Your task to perform on an android device: What's the weather going to be tomorrow? Image 0: 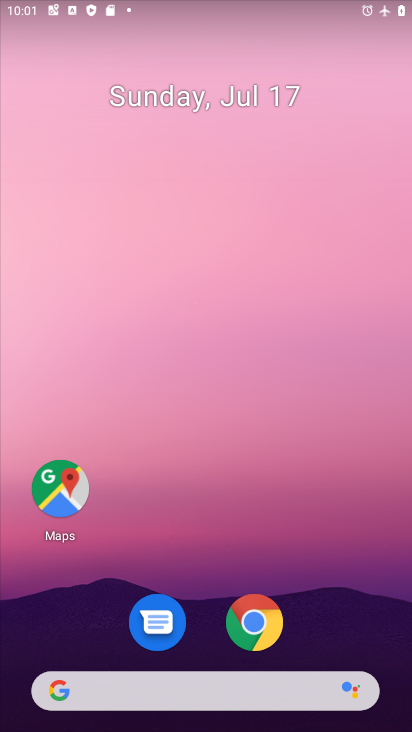
Step 0: click (259, 677)
Your task to perform on an android device: What's the weather going to be tomorrow? Image 1: 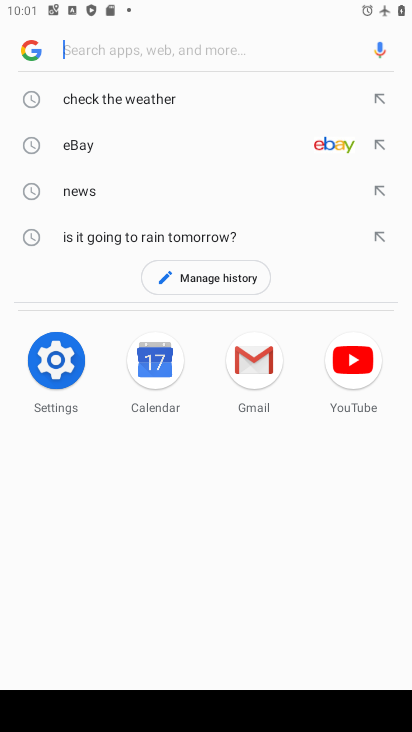
Step 1: type "What's the weather going to be tomorrow?"
Your task to perform on an android device: What's the weather going to be tomorrow? Image 2: 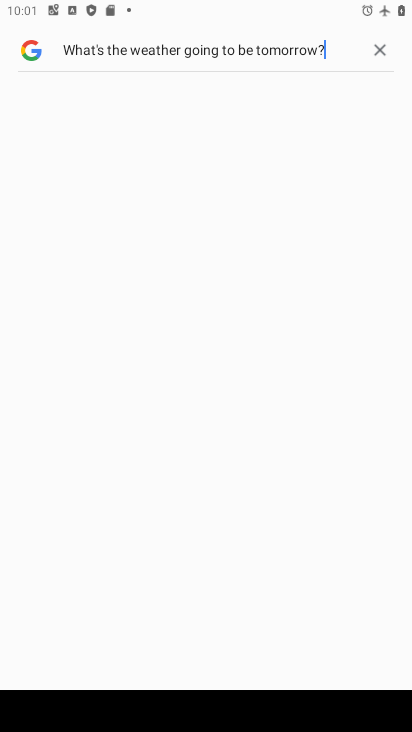
Step 2: press enter
Your task to perform on an android device: What's the weather going to be tomorrow? Image 3: 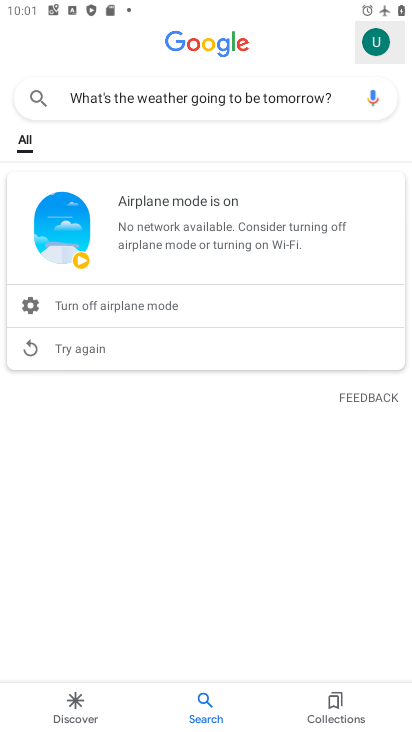
Step 3: task complete